Your task to perform on an android device: toggle priority inbox in the gmail app Image 0: 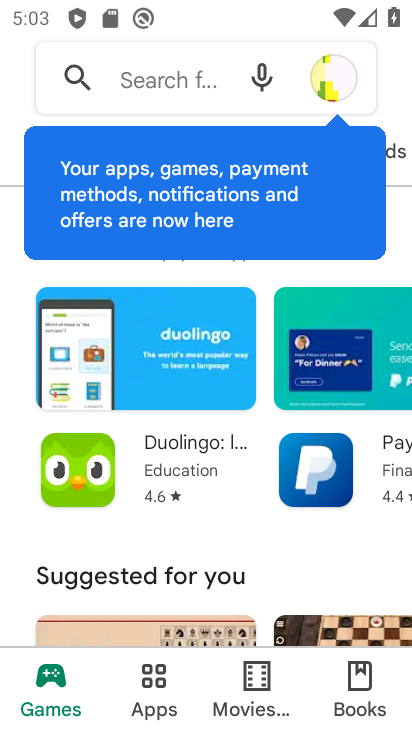
Step 0: press home button
Your task to perform on an android device: toggle priority inbox in the gmail app Image 1: 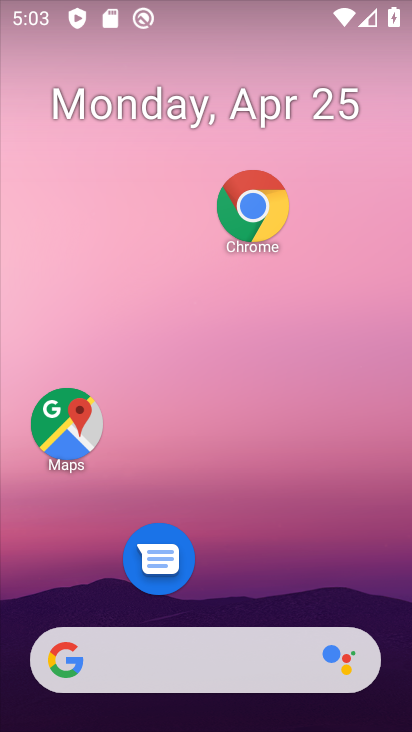
Step 1: drag from (254, 550) to (215, 46)
Your task to perform on an android device: toggle priority inbox in the gmail app Image 2: 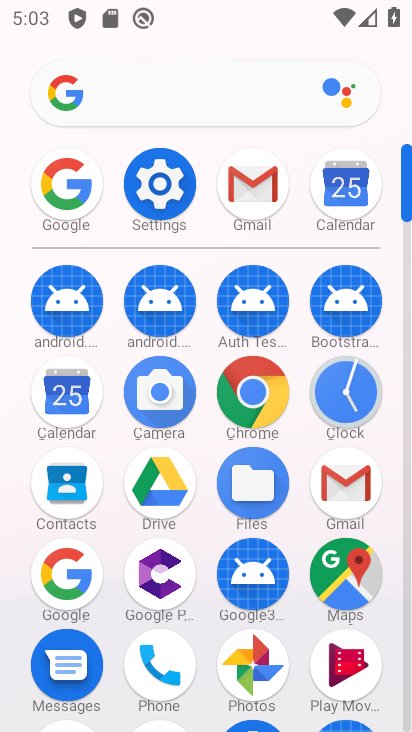
Step 2: click (246, 186)
Your task to perform on an android device: toggle priority inbox in the gmail app Image 3: 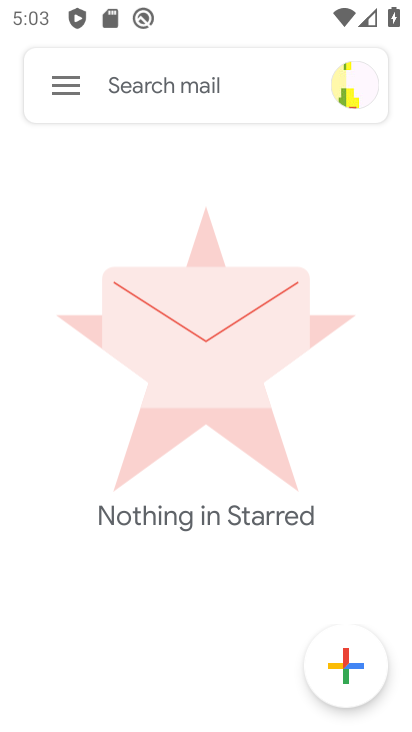
Step 3: click (73, 88)
Your task to perform on an android device: toggle priority inbox in the gmail app Image 4: 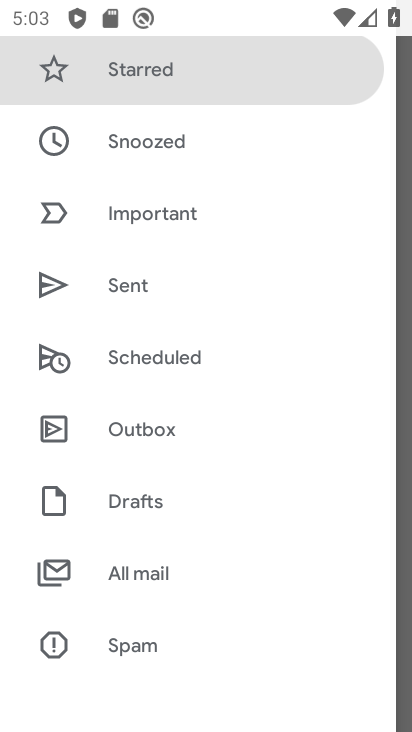
Step 4: drag from (199, 493) to (214, 412)
Your task to perform on an android device: toggle priority inbox in the gmail app Image 5: 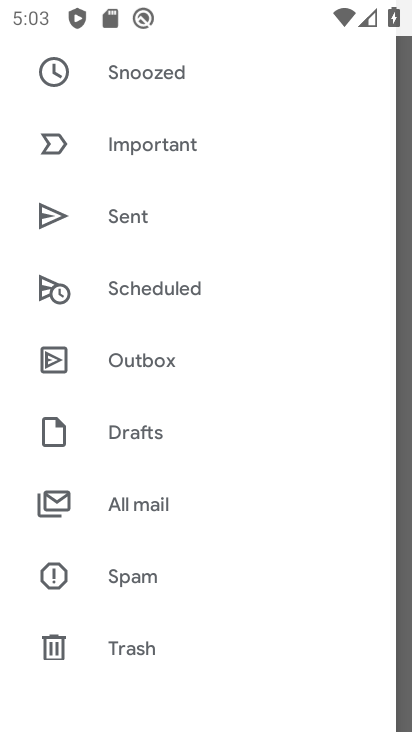
Step 5: drag from (216, 560) to (250, 441)
Your task to perform on an android device: toggle priority inbox in the gmail app Image 6: 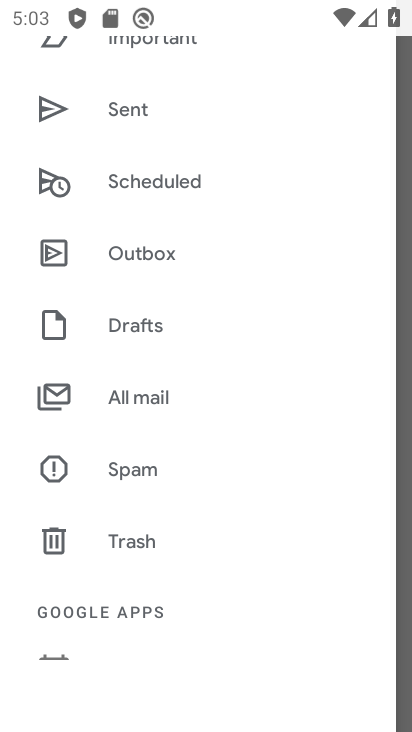
Step 6: drag from (204, 531) to (242, 441)
Your task to perform on an android device: toggle priority inbox in the gmail app Image 7: 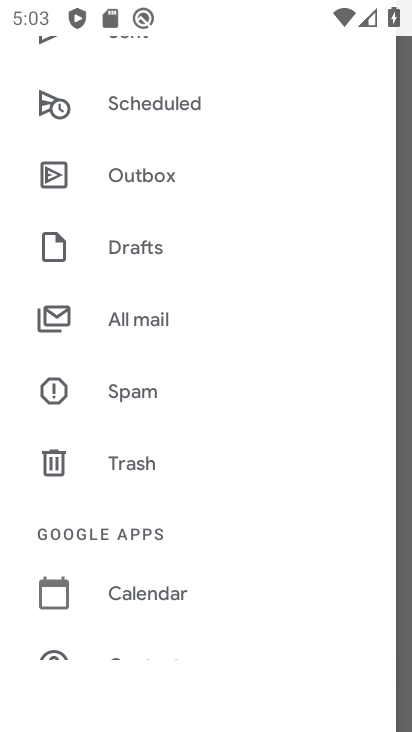
Step 7: drag from (206, 544) to (270, 440)
Your task to perform on an android device: toggle priority inbox in the gmail app Image 8: 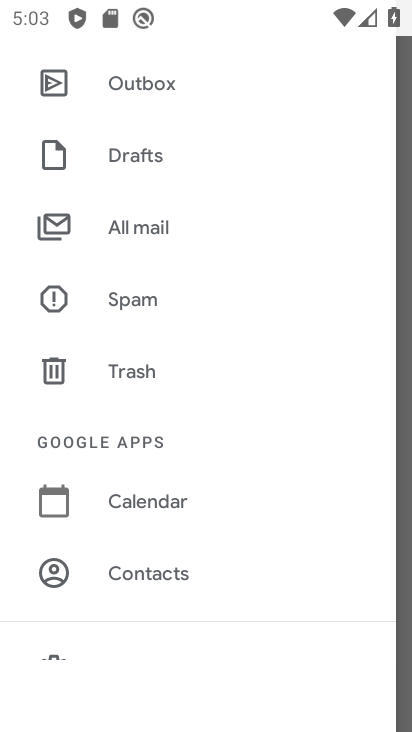
Step 8: drag from (212, 555) to (278, 426)
Your task to perform on an android device: toggle priority inbox in the gmail app Image 9: 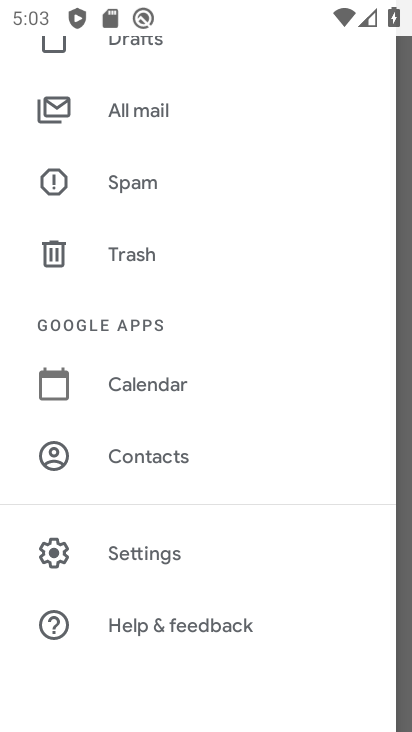
Step 9: click (167, 554)
Your task to perform on an android device: toggle priority inbox in the gmail app Image 10: 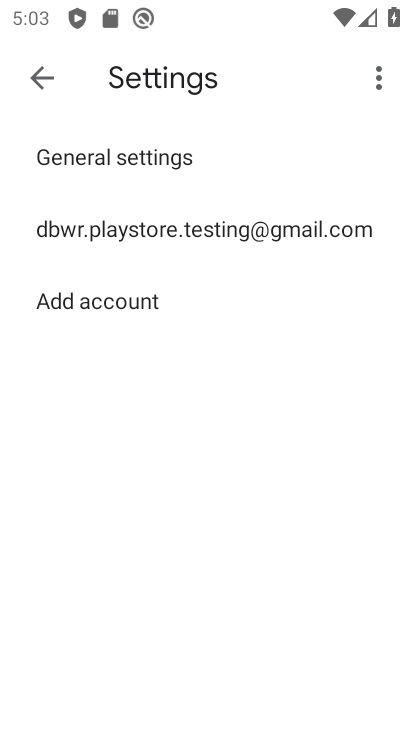
Step 10: click (271, 236)
Your task to perform on an android device: toggle priority inbox in the gmail app Image 11: 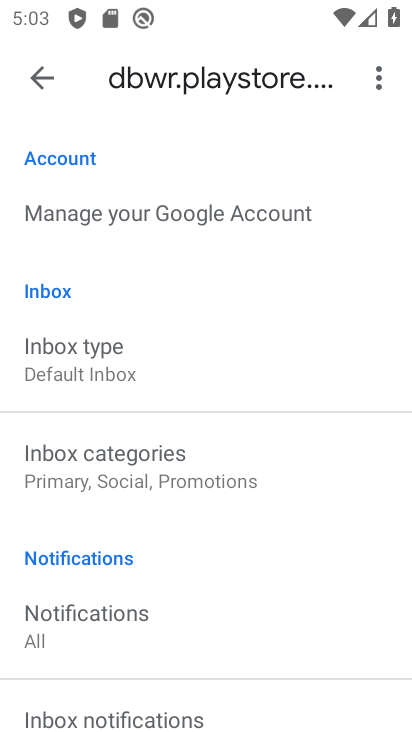
Step 11: click (121, 365)
Your task to perform on an android device: toggle priority inbox in the gmail app Image 12: 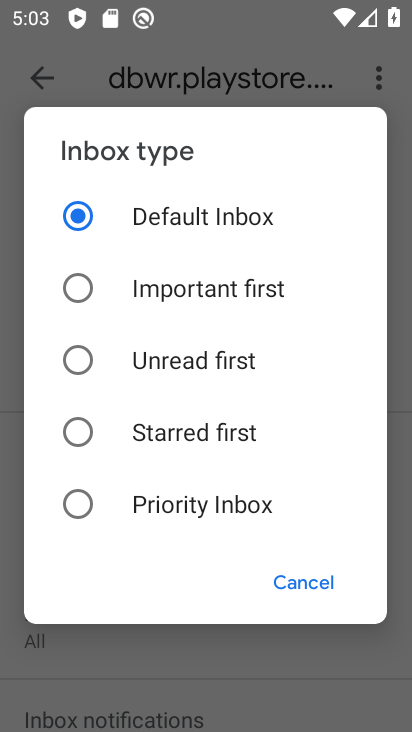
Step 12: click (91, 511)
Your task to perform on an android device: toggle priority inbox in the gmail app Image 13: 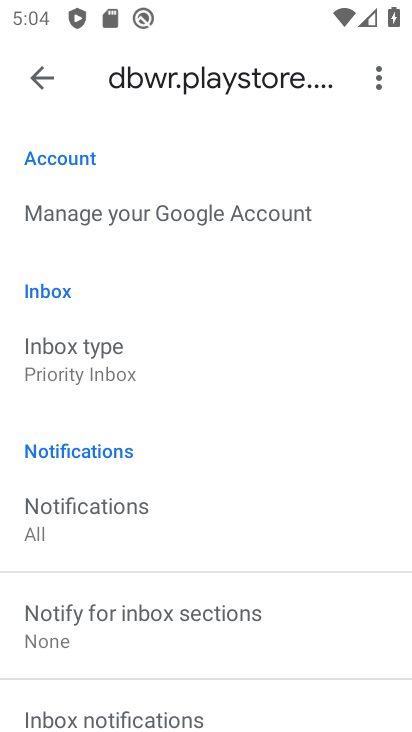
Step 13: task complete